Your task to perform on an android device: Check the news Image 0: 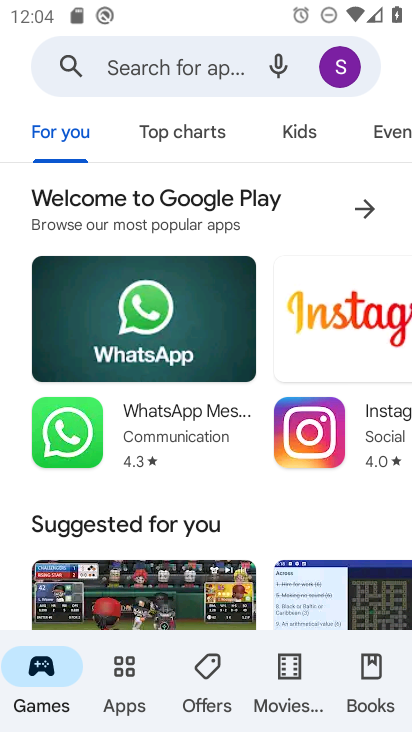
Step 0: press home button
Your task to perform on an android device: Check the news Image 1: 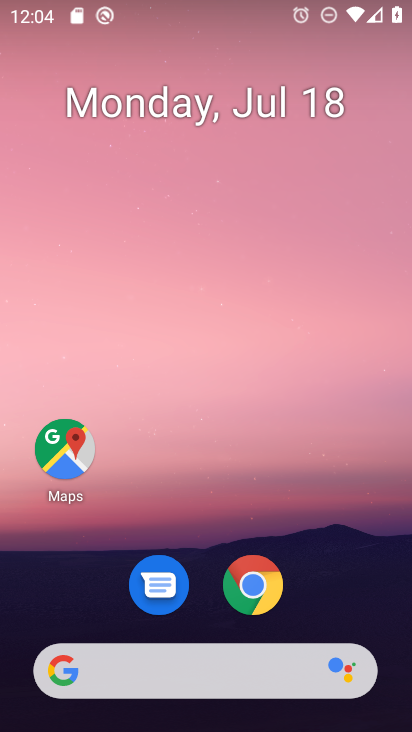
Step 1: click (188, 676)
Your task to perform on an android device: Check the news Image 2: 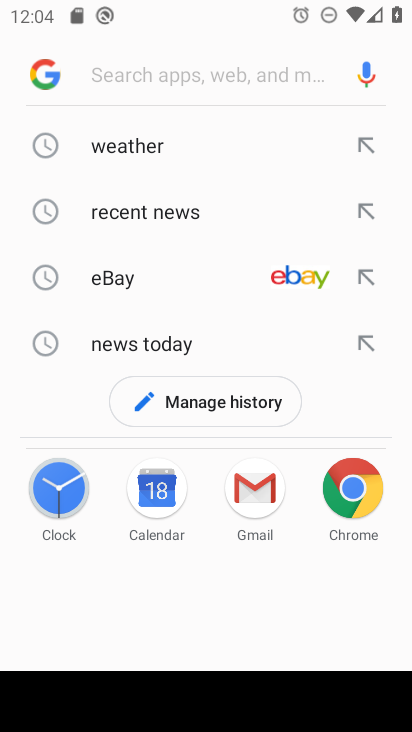
Step 2: click (166, 326)
Your task to perform on an android device: Check the news Image 3: 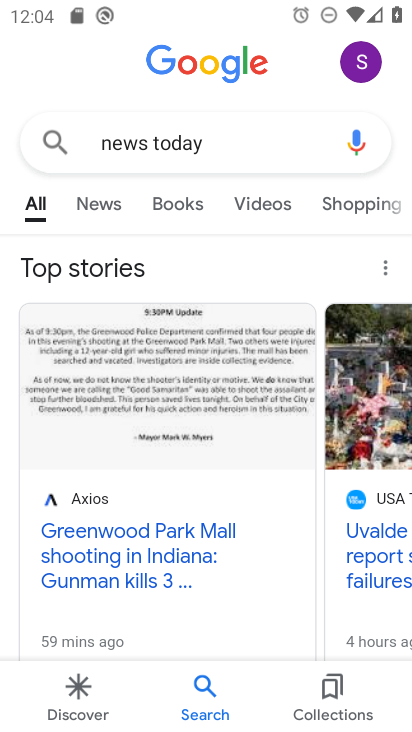
Step 3: click (99, 195)
Your task to perform on an android device: Check the news Image 4: 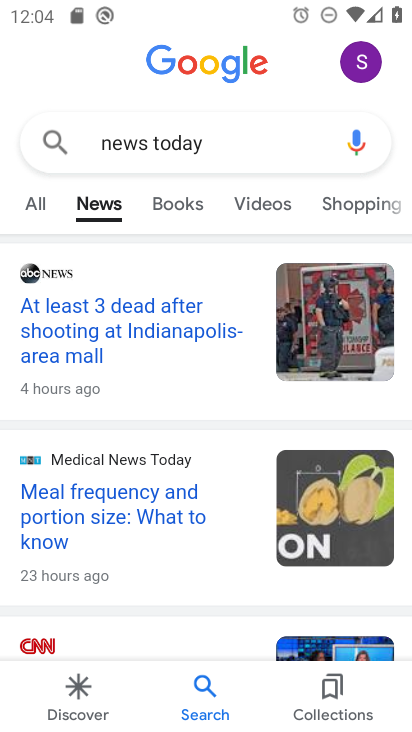
Step 4: drag from (186, 512) to (163, 237)
Your task to perform on an android device: Check the news Image 5: 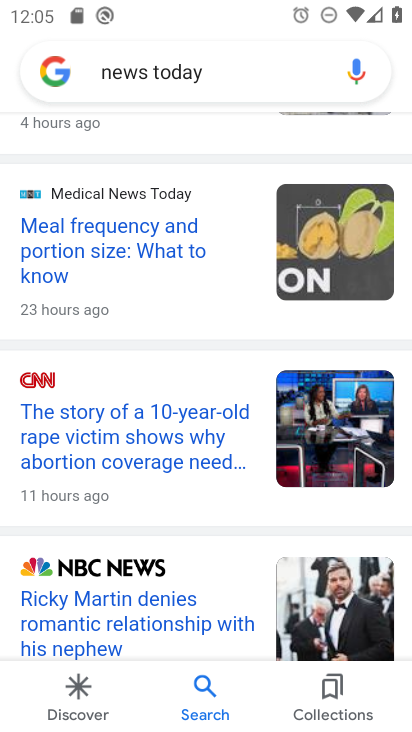
Step 5: drag from (150, 559) to (152, 252)
Your task to perform on an android device: Check the news Image 6: 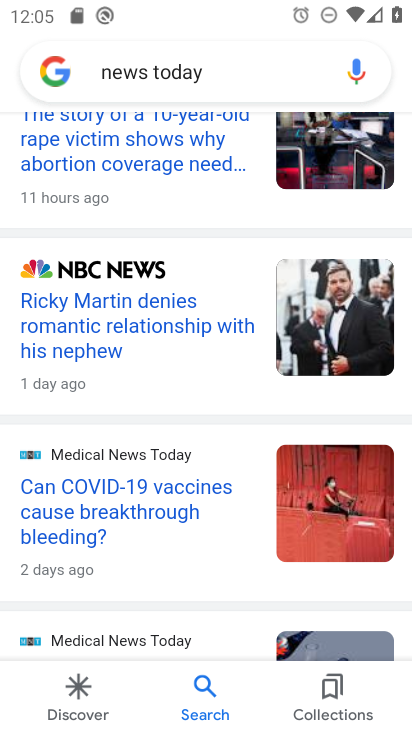
Step 6: drag from (198, 534) to (176, 248)
Your task to perform on an android device: Check the news Image 7: 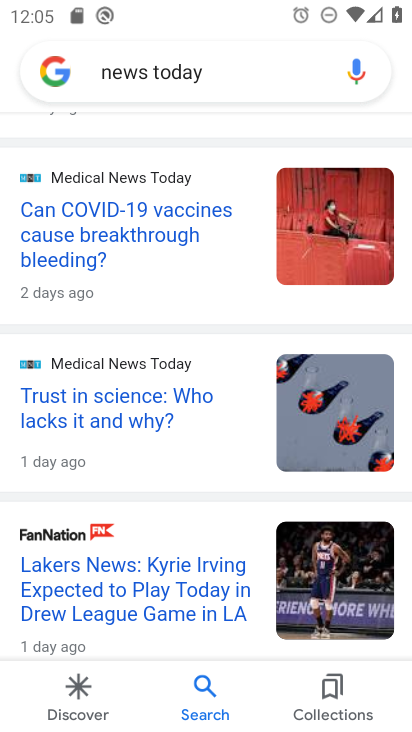
Step 7: drag from (216, 499) to (189, 262)
Your task to perform on an android device: Check the news Image 8: 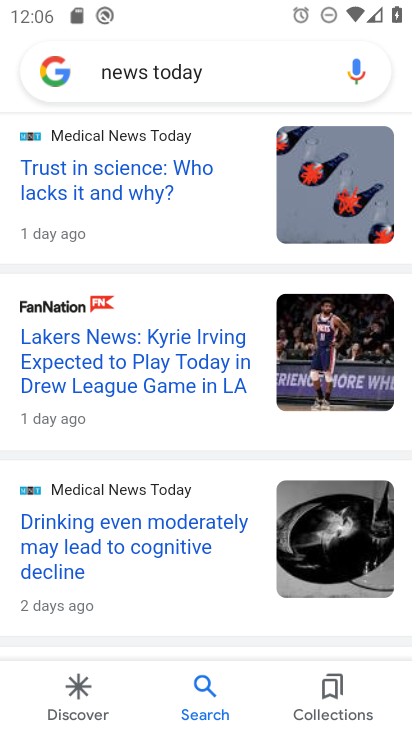
Step 8: click (207, 524)
Your task to perform on an android device: Check the news Image 9: 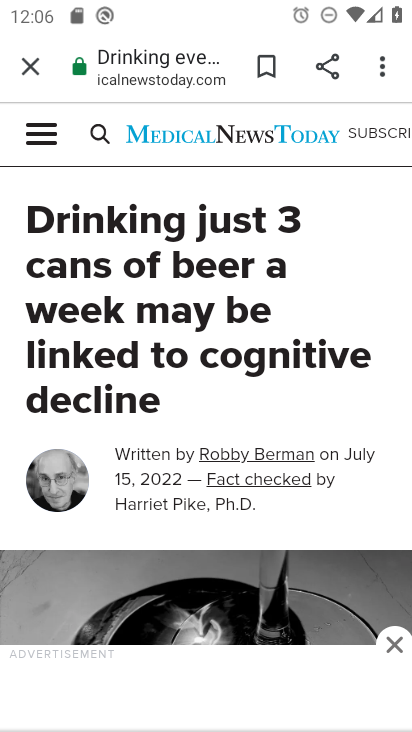
Step 9: task complete